Your task to perform on an android device: empty trash in the gmail app Image 0: 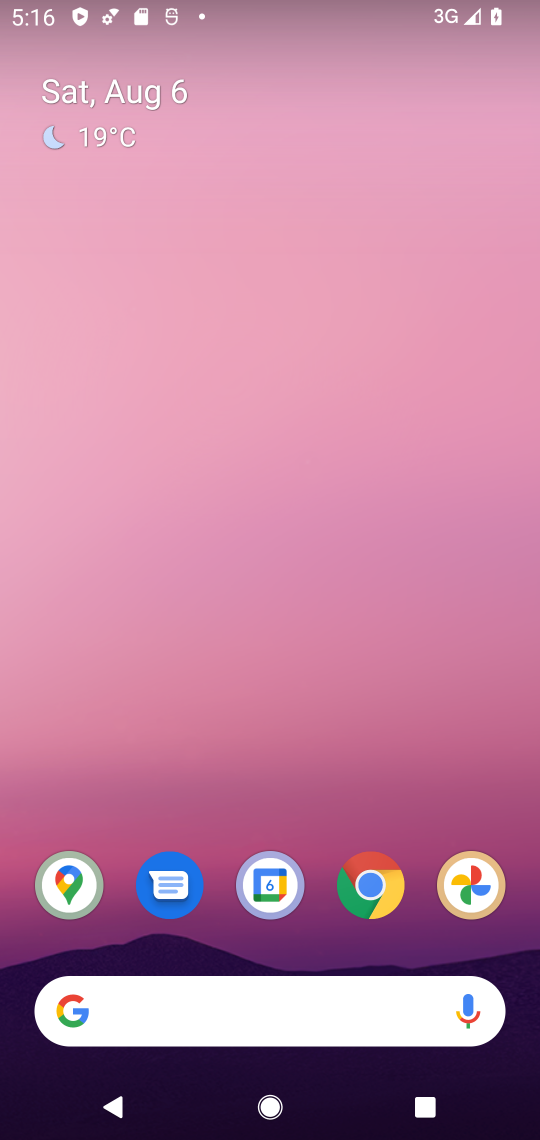
Step 0: drag from (360, 779) to (118, 67)
Your task to perform on an android device: empty trash in the gmail app Image 1: 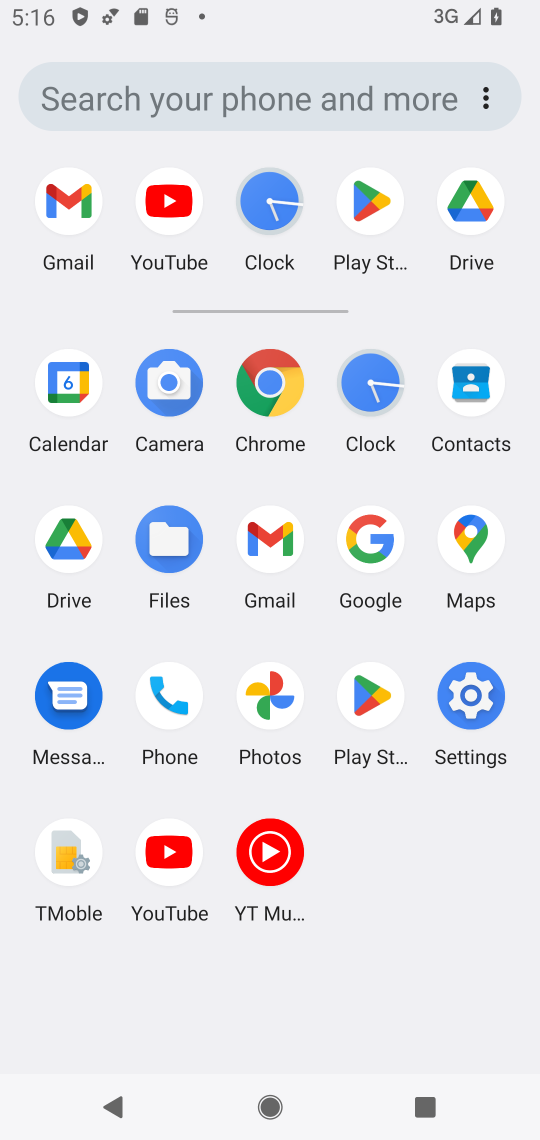
Step 1: click (270, 575)
Your task to perform on an android device: empty trash in the gmail app Image 2: 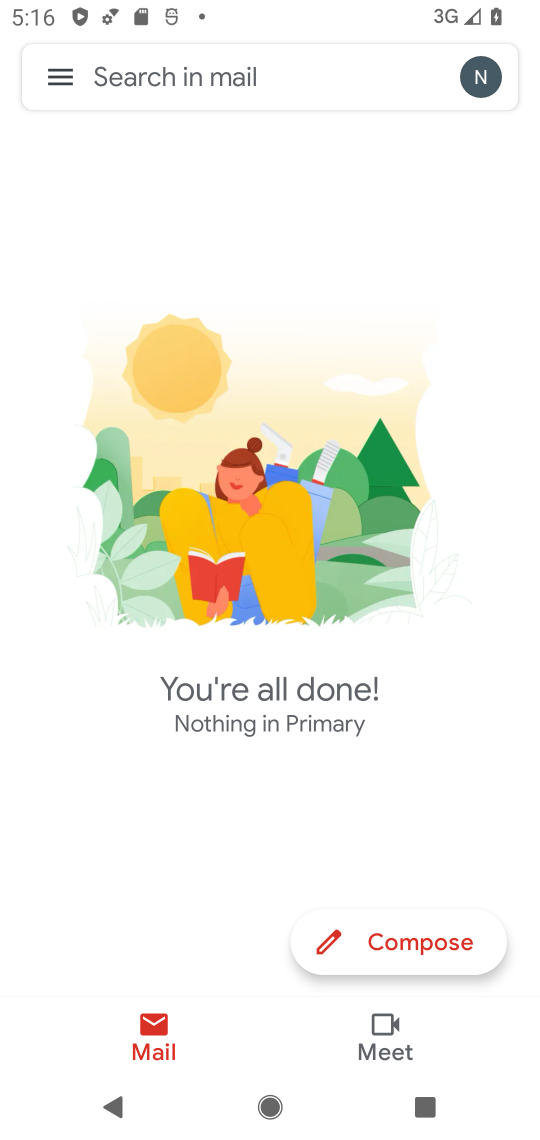
Step 2: click (40, 77)
Your task to perform on an android device: empty trash in the gmail app Image 3: 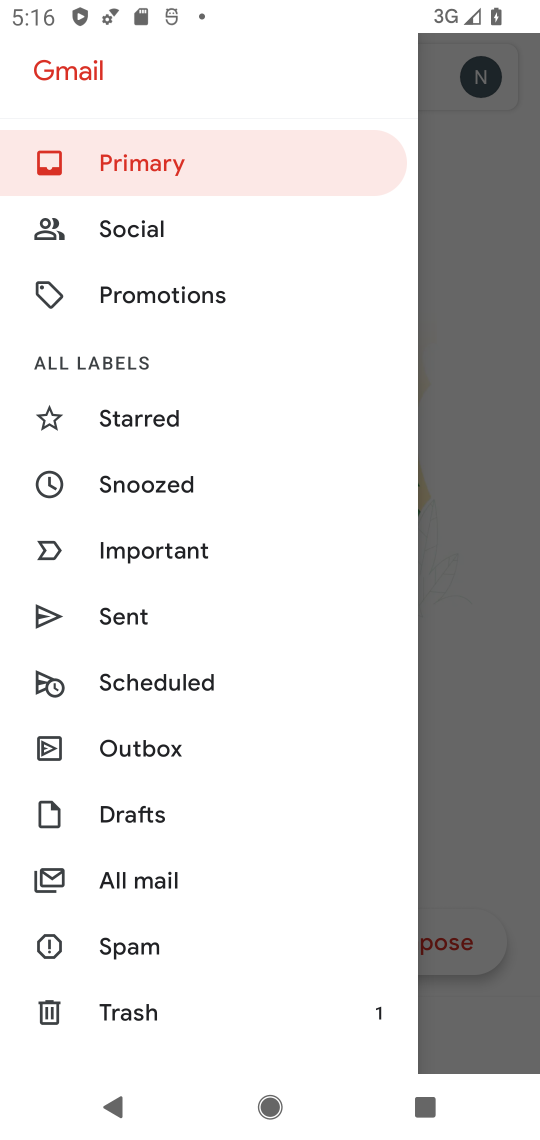
Step 3: click (157, 1002)
Your task to perform on an android device: empty trash in the gmail app Image 4: 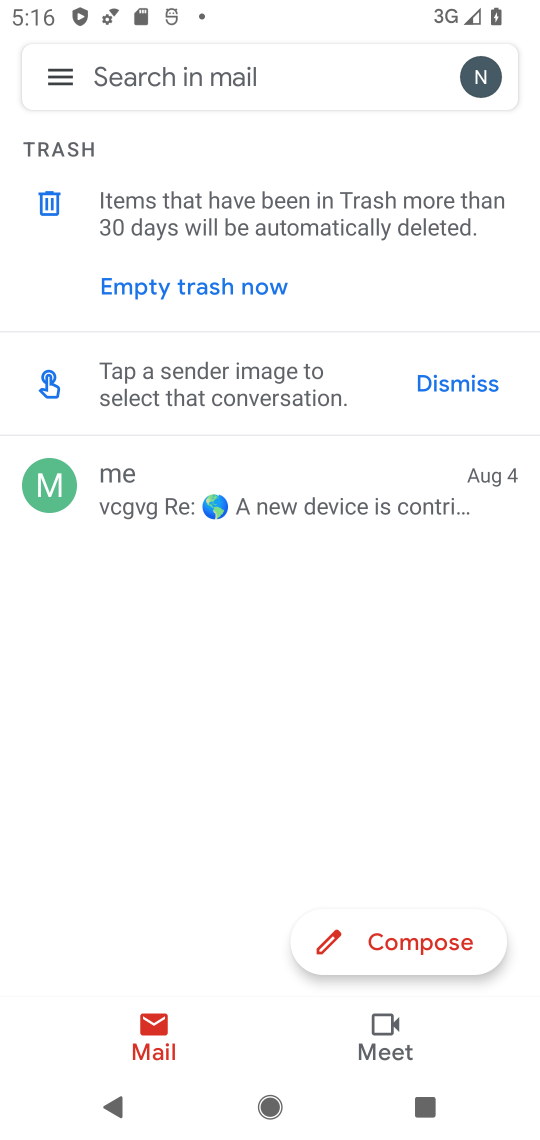
Step 4: click (177, 286)
Your task to perform on an android device: empty trash in the gmail app Image 5: 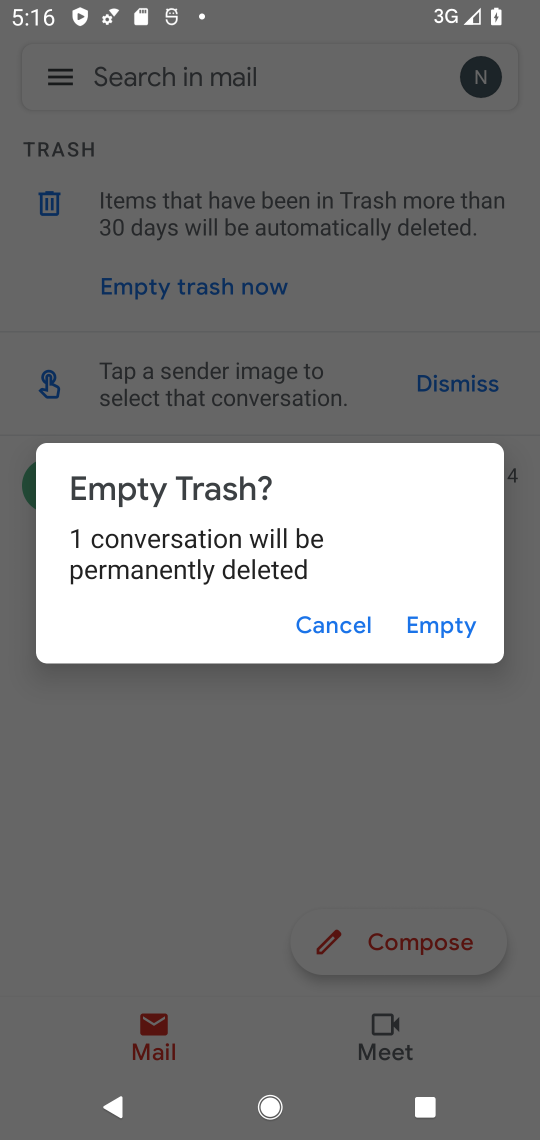
Step 5: click (432, 636)
Your task to perform on an android device: empty trash in the gmail app Image 6: 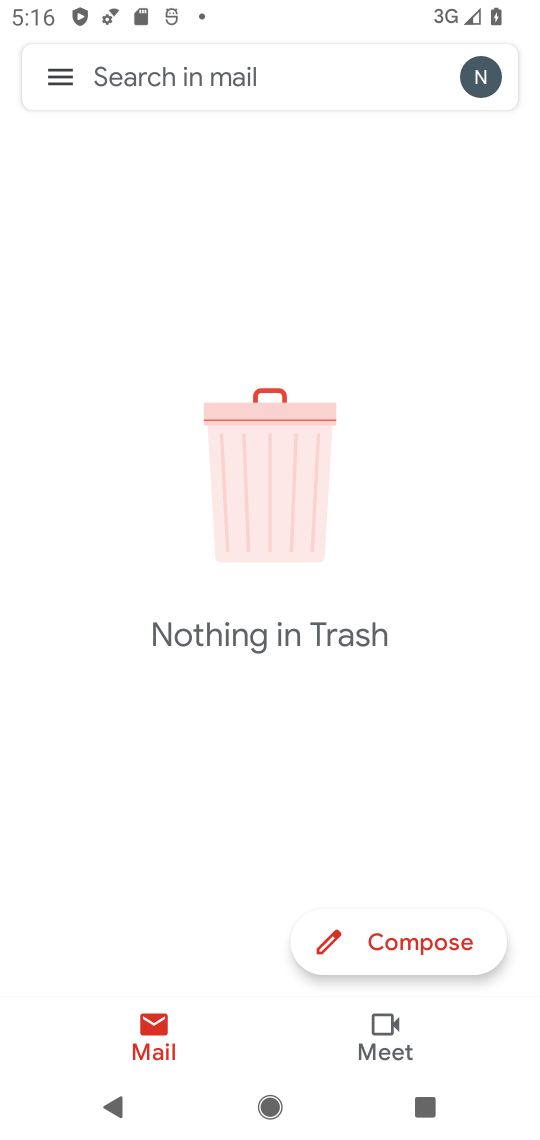
Step 6: task complete